Your task to perform on an android device: Open calendar and show me the third week of next month Image 0: 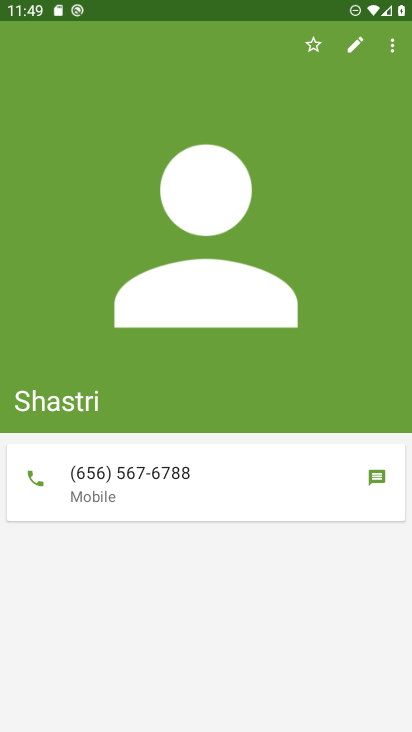
Step 0: press home button
Your task to perform on an android device: Open calendar and show me the third week of next month Image 1: 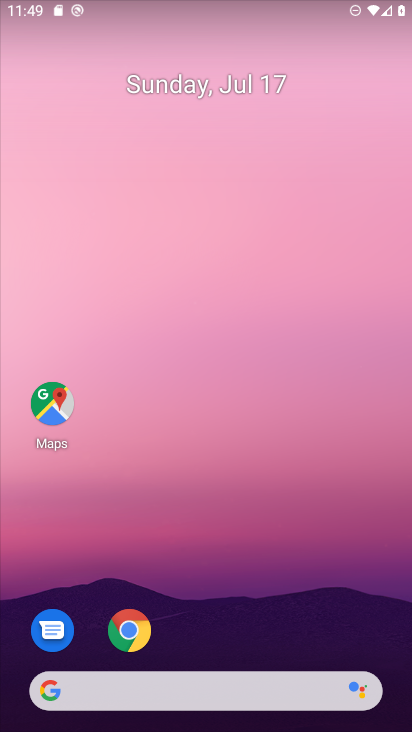
Step 1: drag from (236, 546) to (276, 50)
Your task to perform on an android device: Open calendar and show me the third week of next month Image 2: 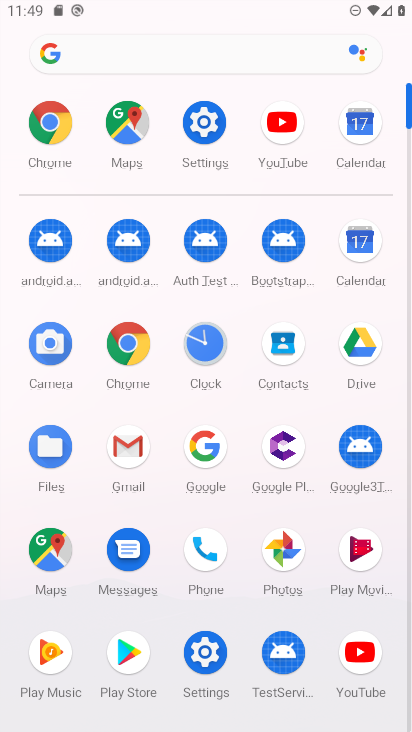
Step 2: click (360, 288)
Your task to perform on an android device: Open calendar and show me the third week of next month Image 3: 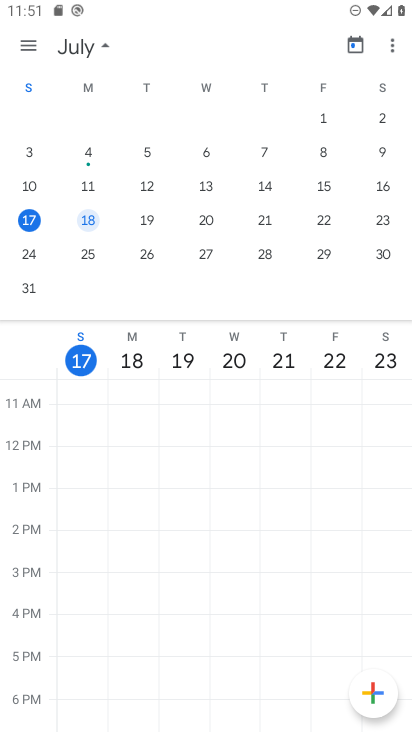
Step 3: drag from (319, 194) to (49, 192)
Your task to perform on an android device: Open calendar and show me the third week of next month Image 4: 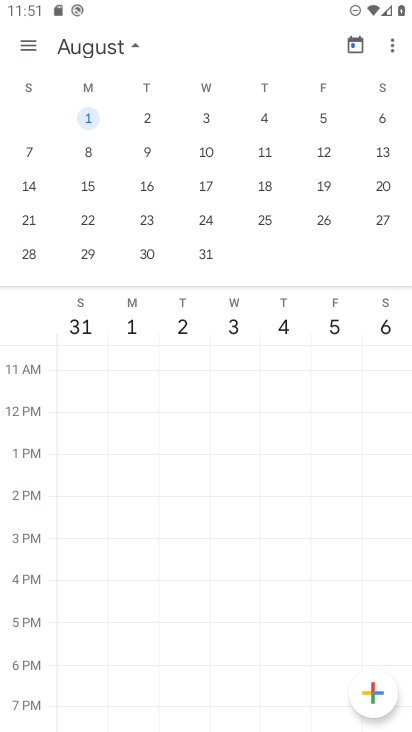
Step 4: click (28, 190)
Your task to perform on an android device: Open calendar and show me the third week of next month Image 5: 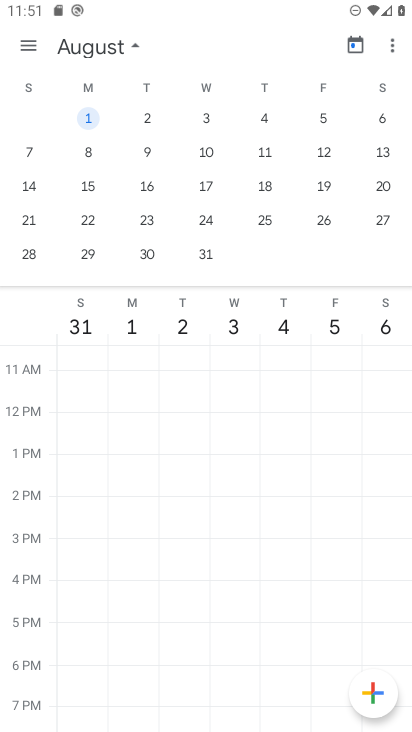
Step 5: click (28, 190)
Your task to perform on an android device: Open calendar and show me the third week of next month Image 6: 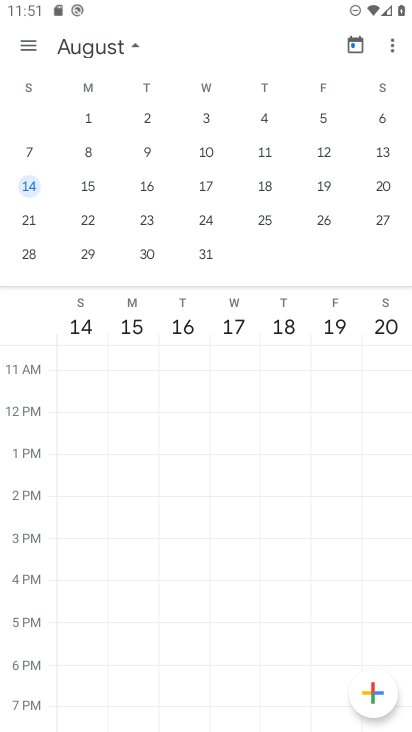
Step 6: task complete